Your task to perform on an android device: Search for Mexican restaurants on Maps Image 0: 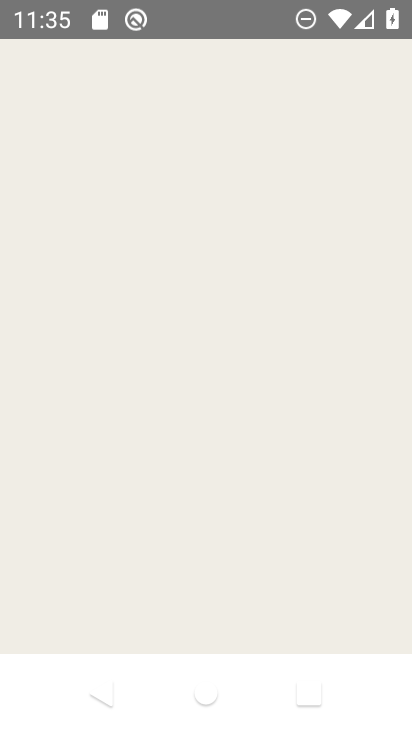
Step 0: press home button
Your task to perform on an android device: Search for Mexican restaurants on Maps Image 1: 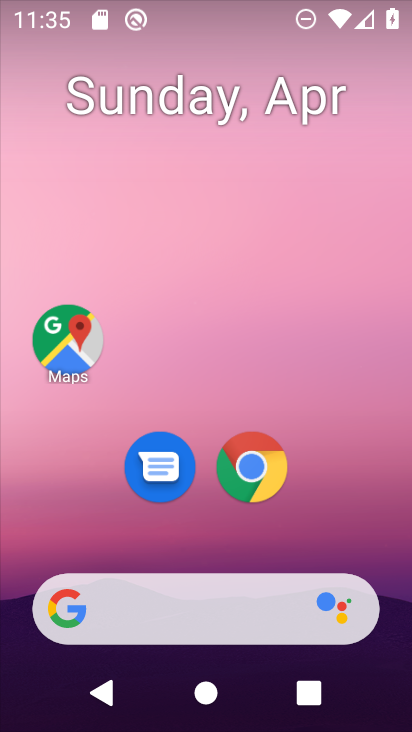
Step 1: drag from (363, 538) to (348, 130)
Your task to perform on an android device: Search for Mexican restaurants on Maps Image 2: 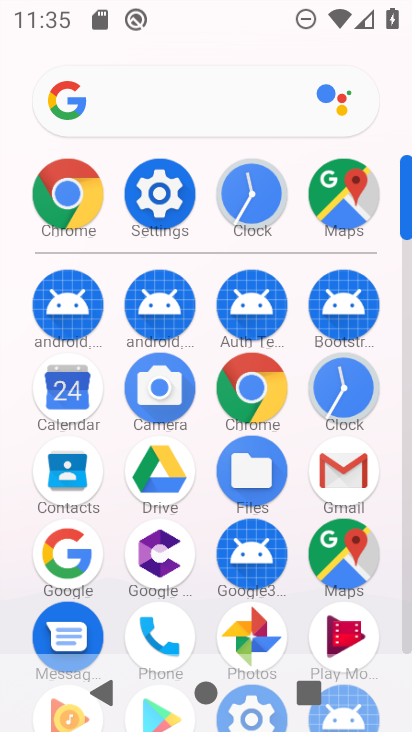
Step 2: click (346, 547)
Your task to perform on an android device: Search for Mexican restaurants on Maps Image 3: 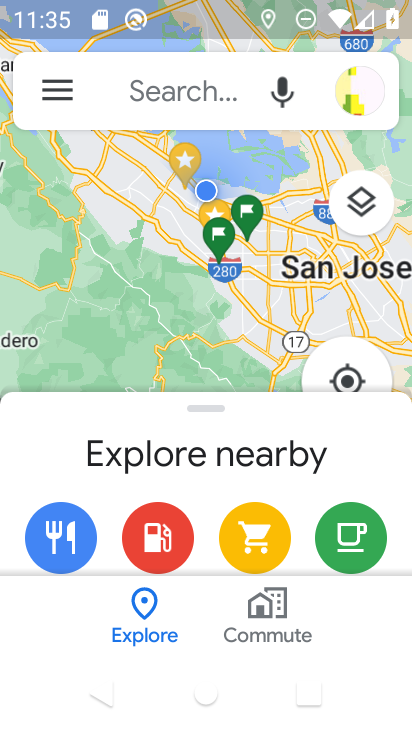
Step 3: click (180, 92)
Your task to perform on an android device: Search for Mexican restaurants on Maps Image 4: 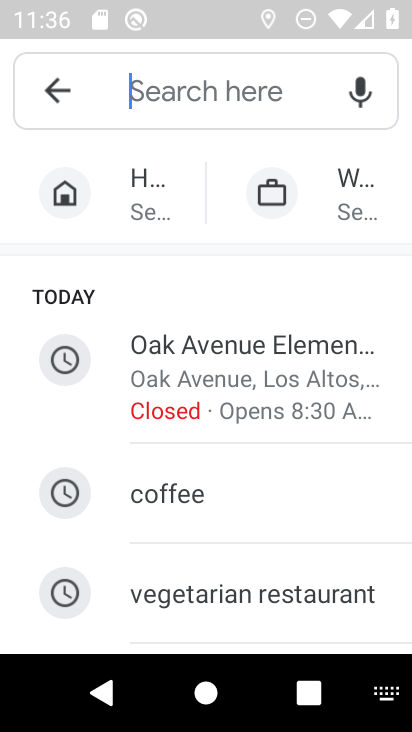
Step 4: type "mexcian restaurants"
Your task to perform on an android device: Search for Mexican restaurants on Maps Image 5: 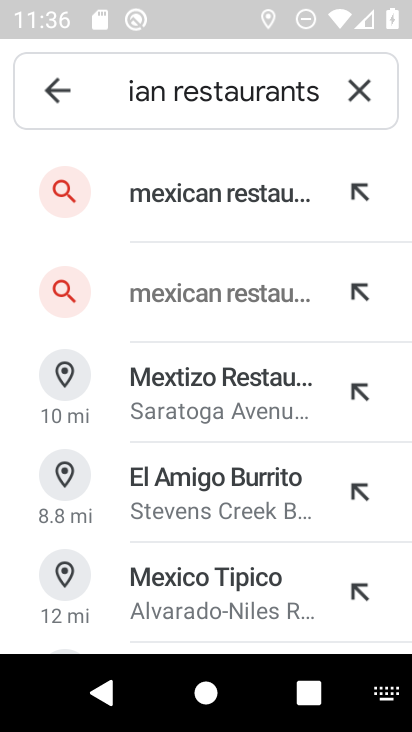
Step 5: click (235, 195)
Your task to perform on an android device: Search for Mexican restaurants on Maps Image 6: 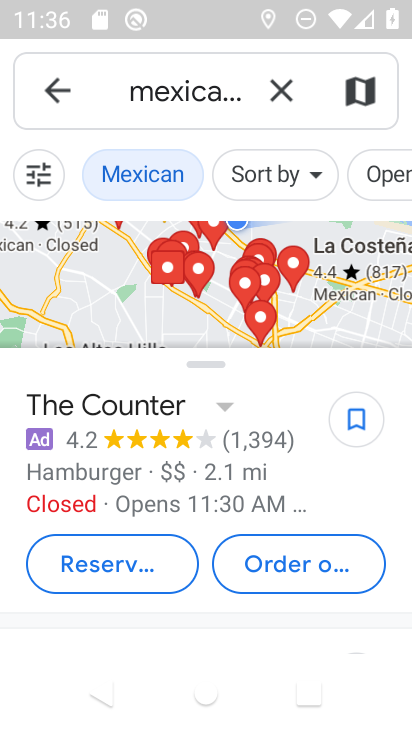
Step 6: task complete